Your task to perform on an android device: add a contact in the contacts app Image 0: 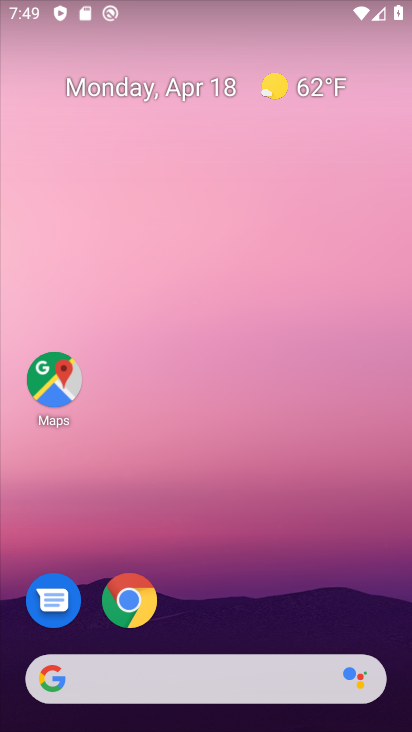
Step 0: drag from (214, 644) to (192, 0)
Your task to perform on an android device: add a contact in the contacts app Image 1: 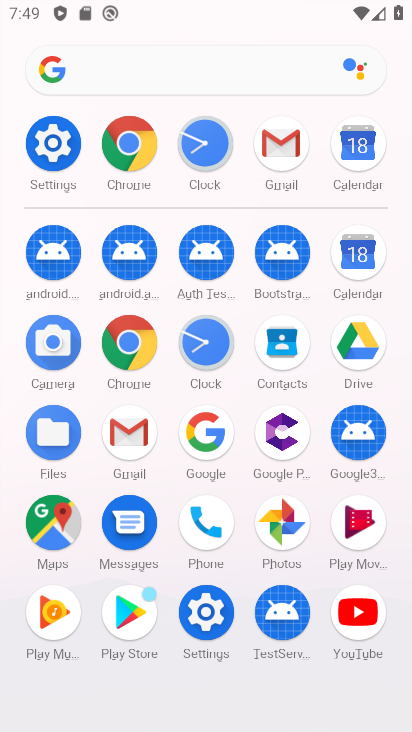
Step 1: click (204, 546)
Your task to perform on an android device: add a contact in the contacts app Image 2: 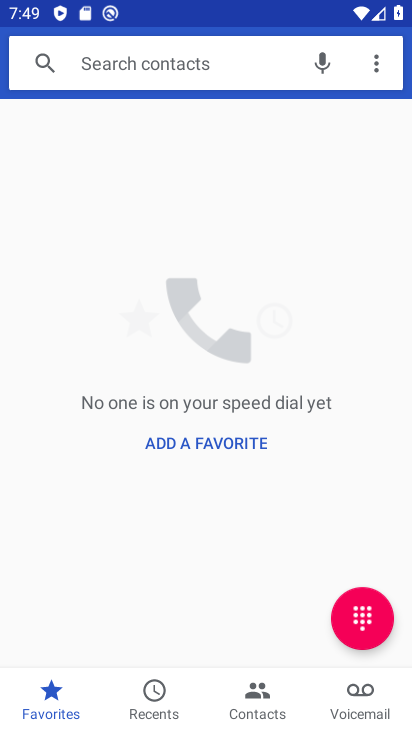
Step 2: click (256, 693)
Your task to perform on an android device: add a contact in the contacts app Image 3: 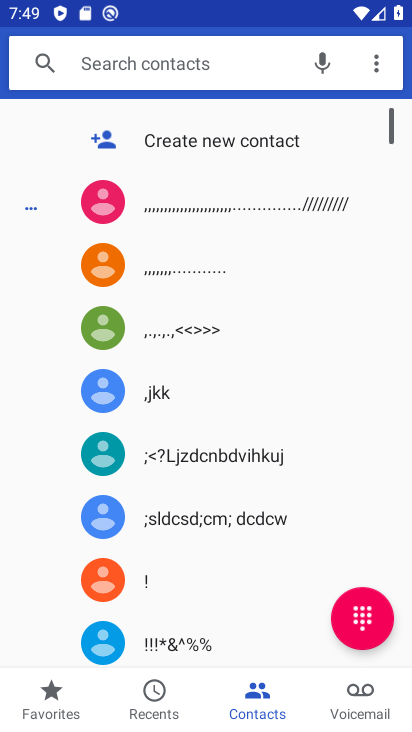
Step 3: click (160, 144)
Your task to perform on an android device: add a contact in the contacts app Image 4: 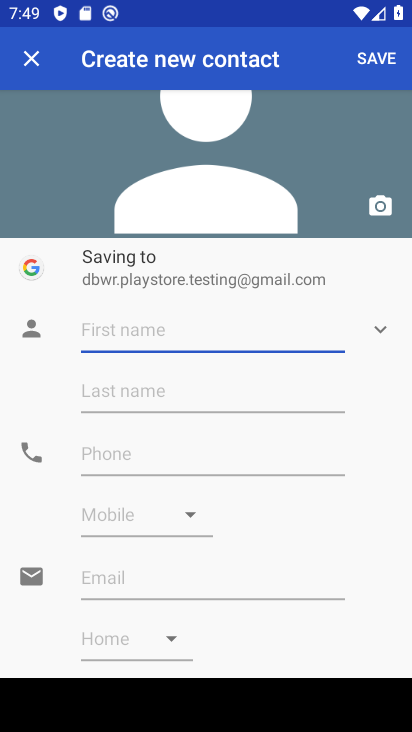
Step 4: type "ni"
Your task to perform on an android device: add a contact in the contacts app Image 5: 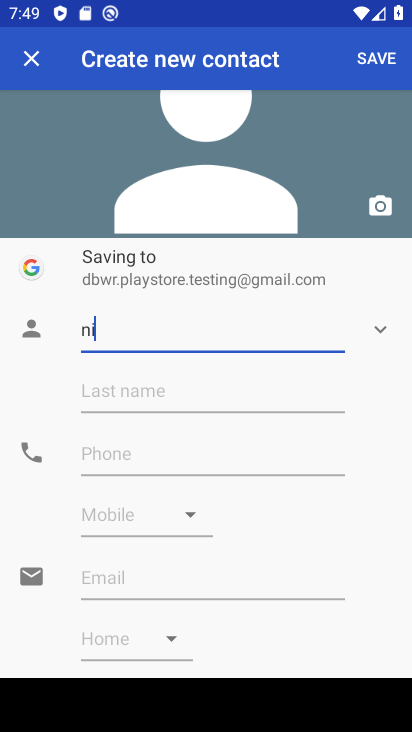
Step 5: type ""
Your task to perform on an android device: add a contact in the contacts app Image 6: 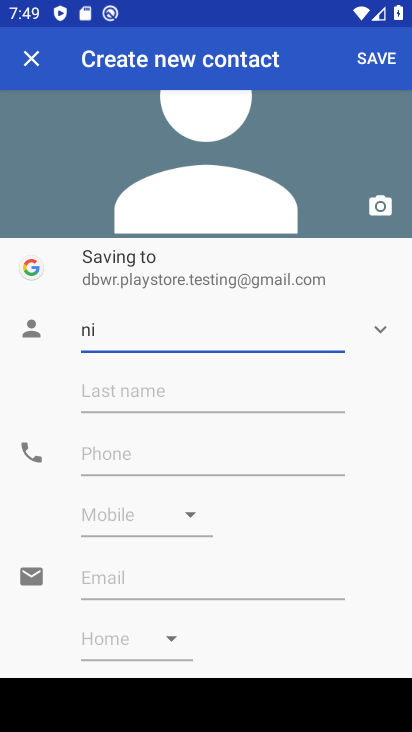
Step 6: click (187, 471)
Your task to perform on an android device: add a contact in the contacts app Image 7: 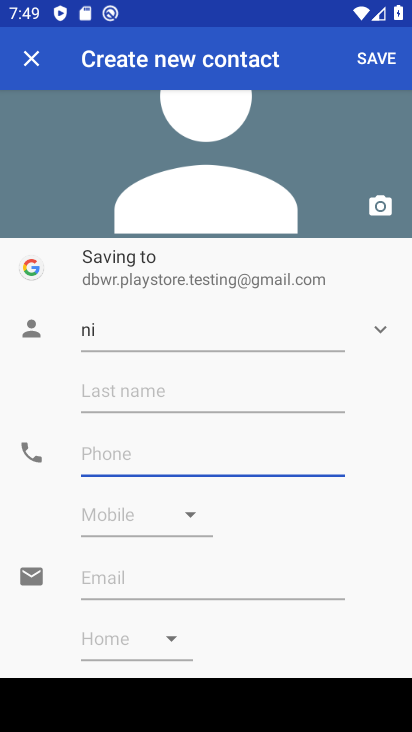
Step 7: type "9009999"
Your task to perform on an android device: add a contact in the contacts app Image 8: 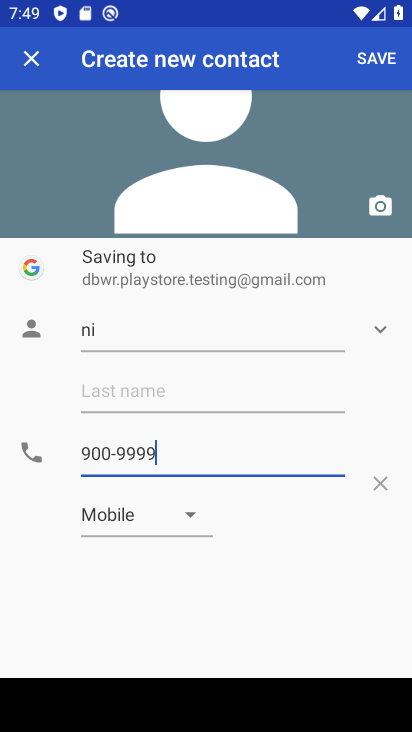
Step 8: type ""
Your task to perform on an android device: add a contact in the contacts app Image 9: 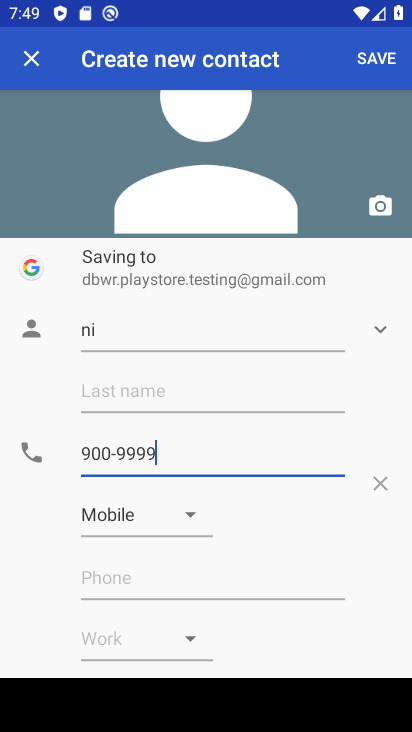
Step 9: click (360, 48)
Your task to perform on an android device: add a contact in the contacts app Image 10: 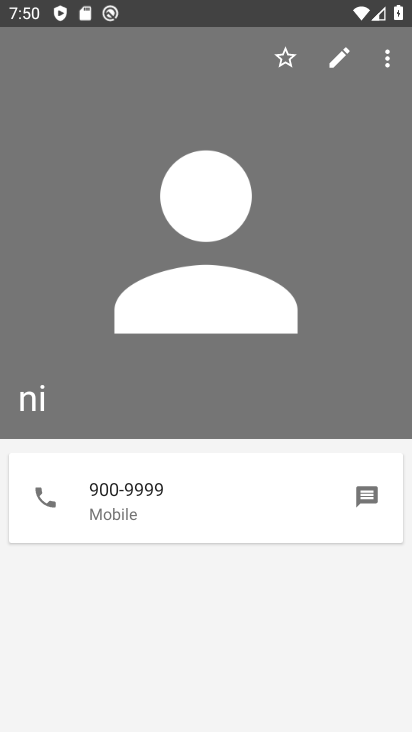
Step 10: task complete